Your task to perform on an android device: remove spam from my inbox in the gmail app Image 0: 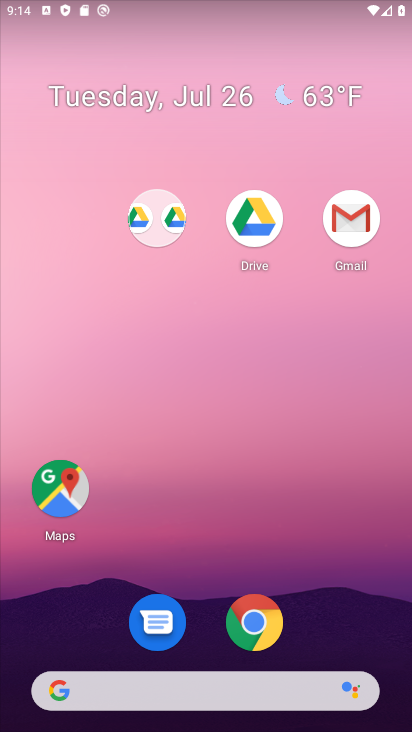
Step 0: click (335, 253)
Your task to perform on an android device: remove spam from my inbox in the gmail app Image 1: 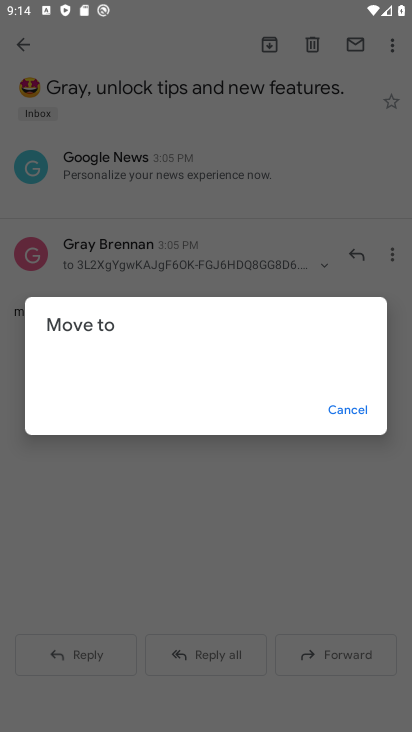
Step 1: click (340, 387)
Your task to perform on an android device: remove spam from my inbox in the gmail app Image 2: 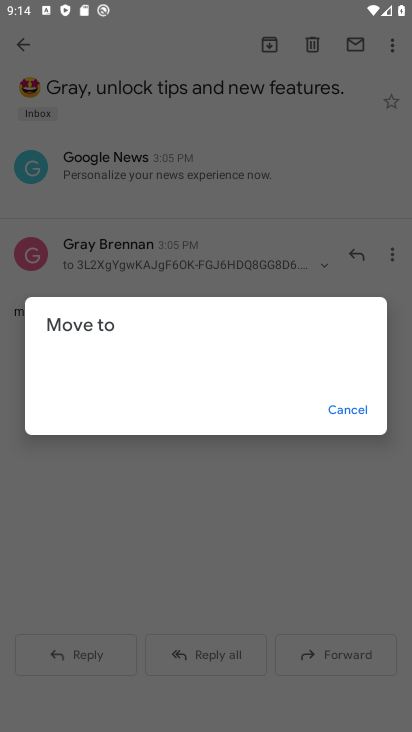
Step 2: click (347, 407)
Your task to perform on an android device: remove spam from my inbox in the gmail app Image 3: 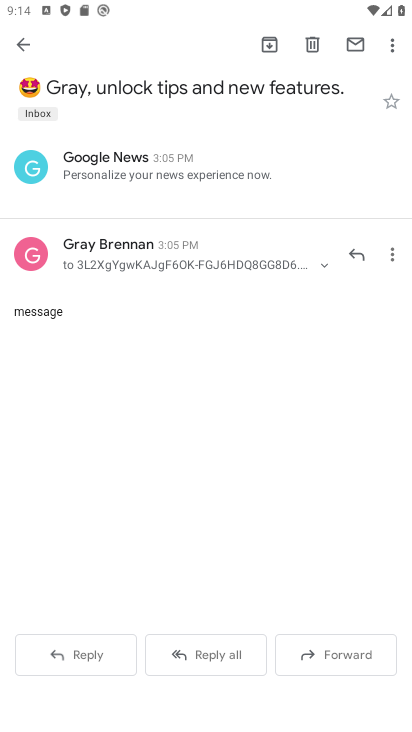
Step 3: click (19, 49)
Your task to perform on an android device: remove spam from my inbox in the gmail app Image 4: 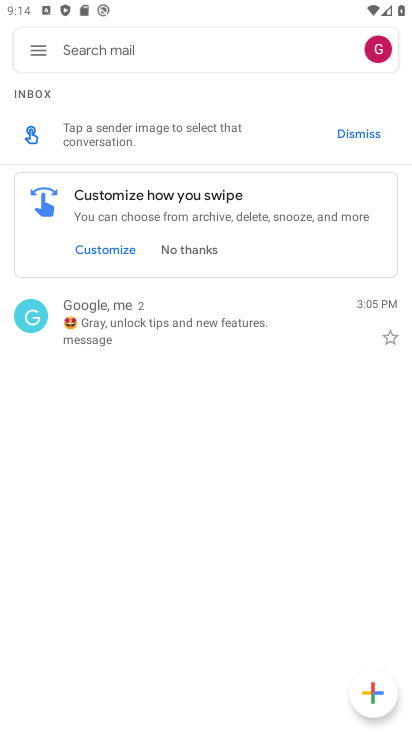
Step 4: click (19, 49)
Your task to perform on an android device: remove spam from my inbox in the gmail app Image 5: 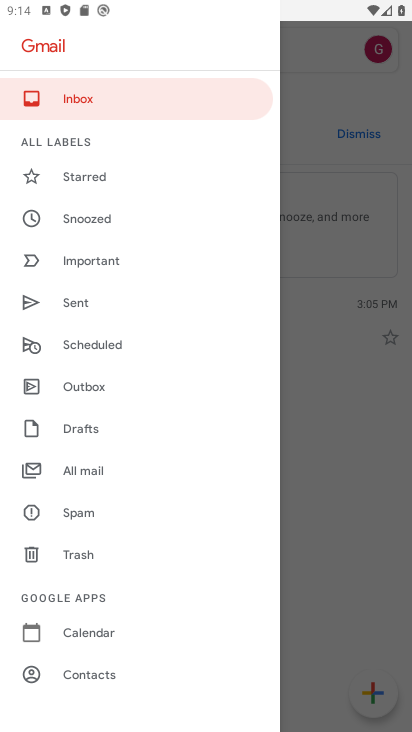
Step 5: click (91, 513)
Your task to perform on an android device: remove spam from my inbox in the gmail app Image 6: 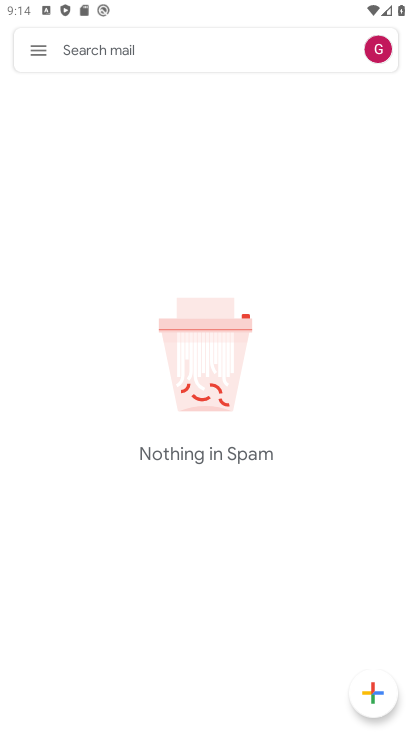
Step 6: task complete